Your task to perform on an android device: stop showing notifications on the lock screen Image 0: 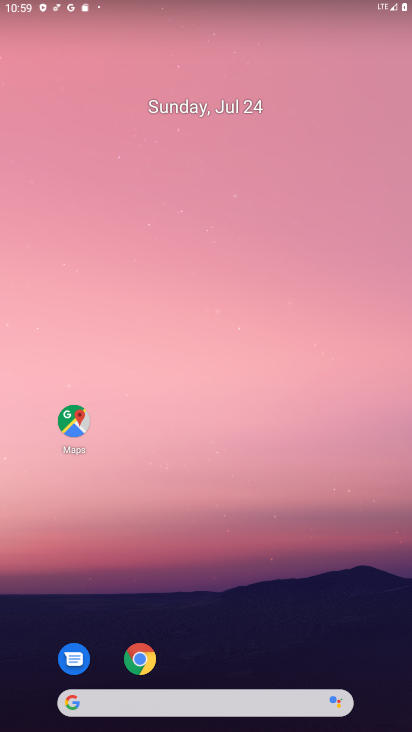
Step 0: drag from (240, 650) to (177, 197)
Your task to perform on an android device: stop showing notifications on the lock screen Image 1: 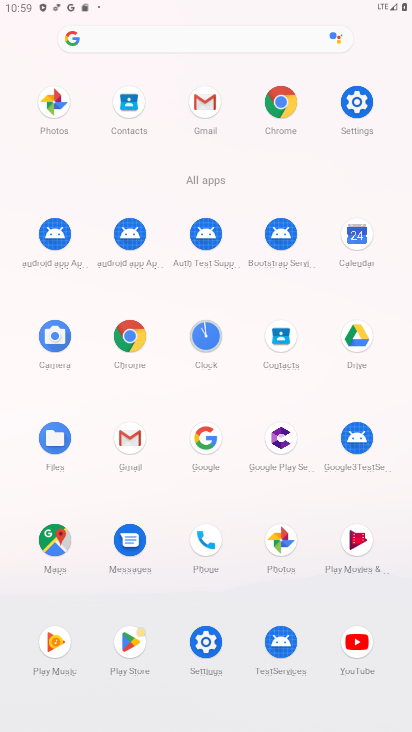
Step 1: click (361, 101)
Your task to perform on an android device: stop showing notifications on the lock screen Image 2: 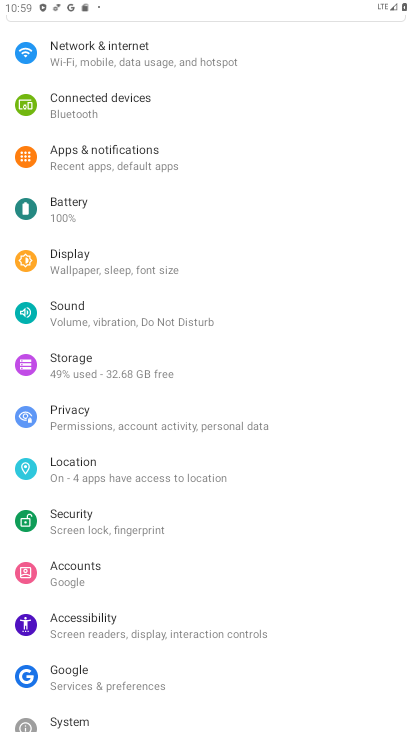
Step 2: click (173, 170)
Your task to perform on an android device: stop showing notifications on the lock screen Image 3: 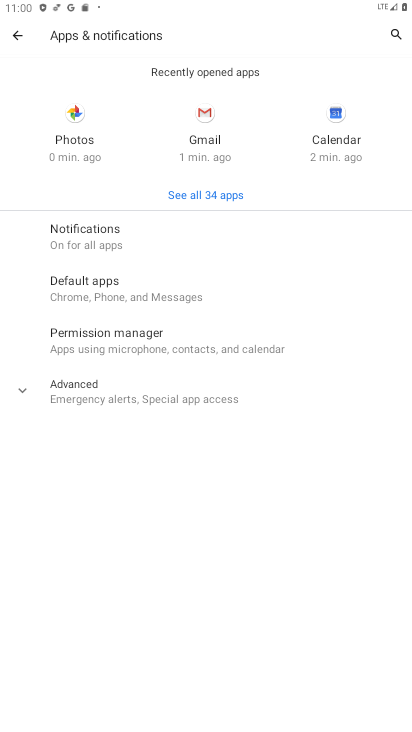
Step 3: click (161, 232)
Your task to perform on an android device: stop showing notifications on the lock screen Image 4: 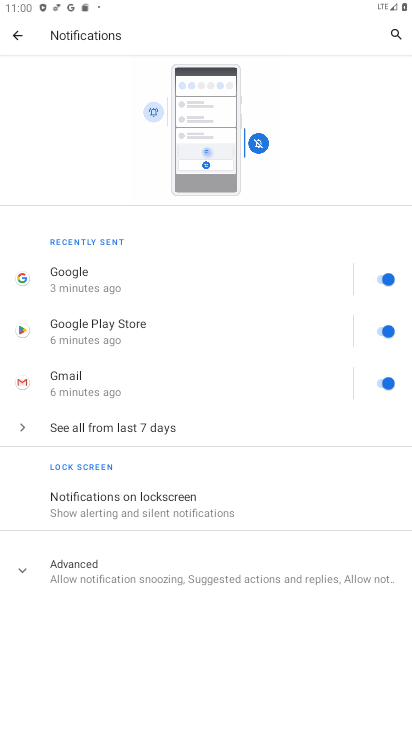
Step 4: click (150, 494)
Your task to perform on an android device: stop showing notifications on the lock screen Image 5: 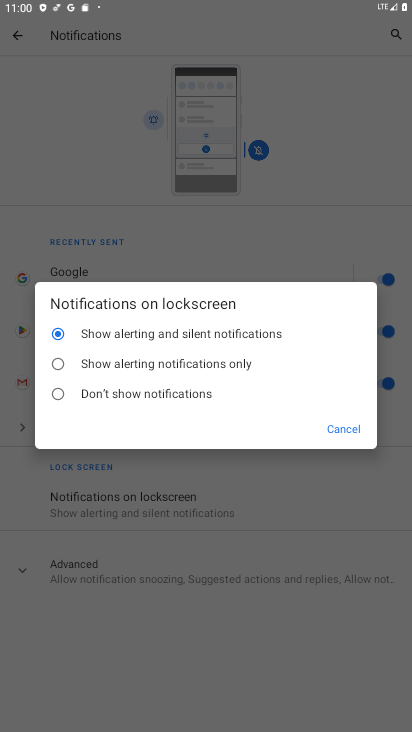
Step 5: click (157, 395)
Your task to perform on an android device: stop showing notifications on the lock screen Image 6: 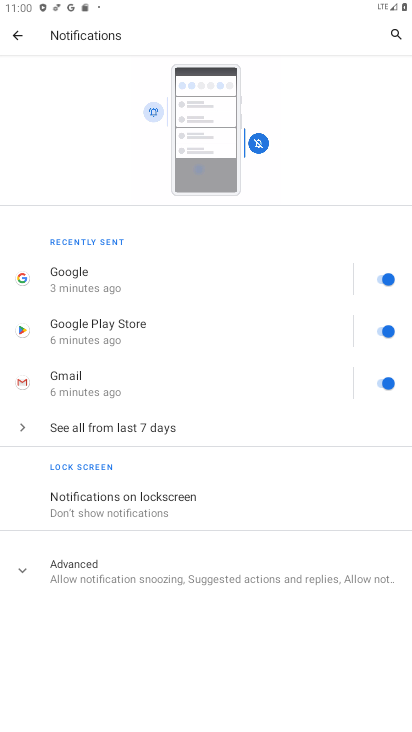
Step 6: task complete